Your task to perform on an android device: Open the web browser Image 0: 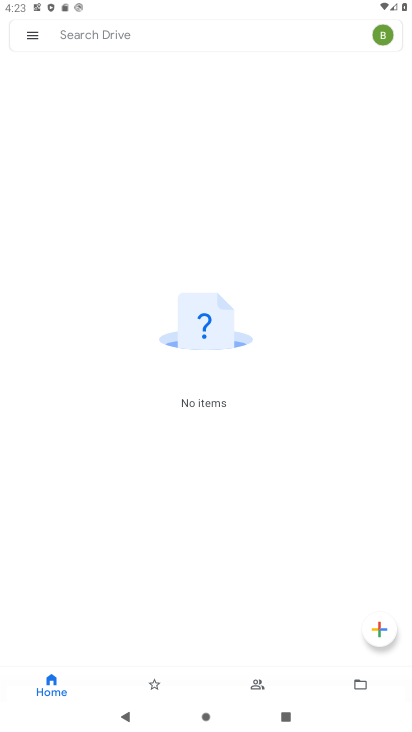
Step 0: press home button
Your task to perform on an android device: Open the web browser Image 1: 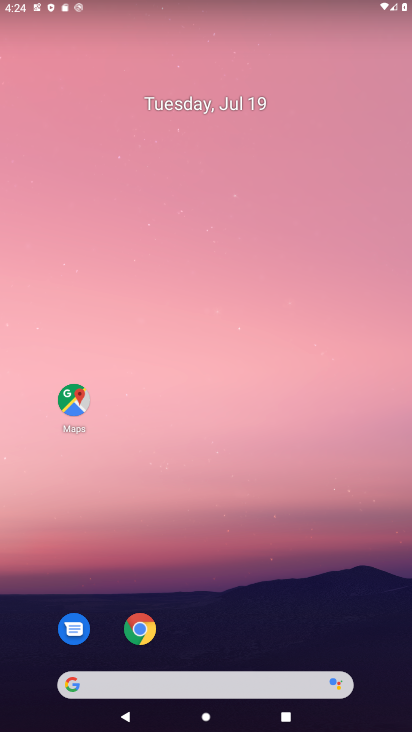
Step 1: click (141, 637)
Your task to perform on an android device: Open the web browser Image 2: 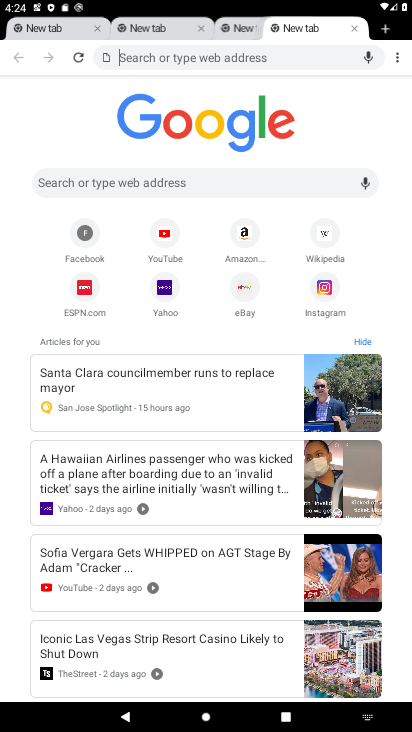
Step 2: task complete